Your task to perform on an android device: open the mobile data screen to see how much data has been used Image 0: 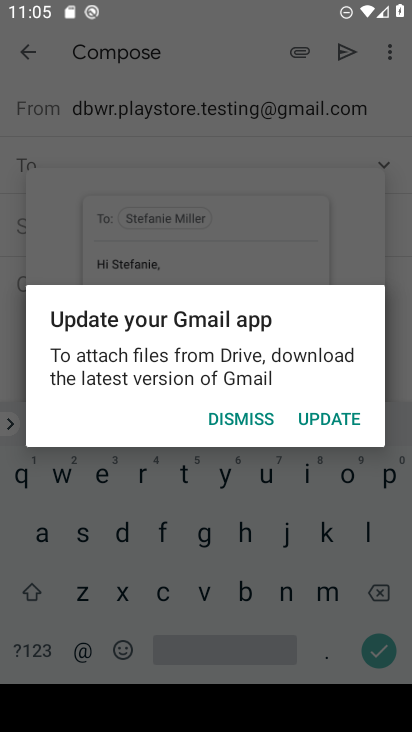
Step 0: press home button
Your task to perform on an android device: open the mobile data screen to see how much data has been used Image 1: 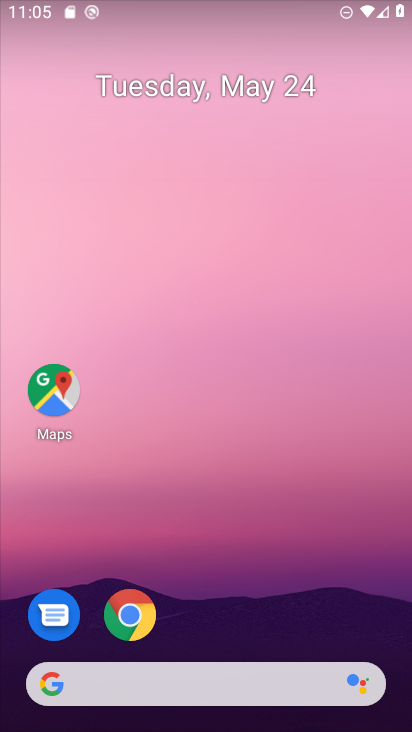
Step 1: drag from (312, 722) to (283, 2)
Your task to perform on an android device: open the mobile data screen to see how much data has been used Image 2: 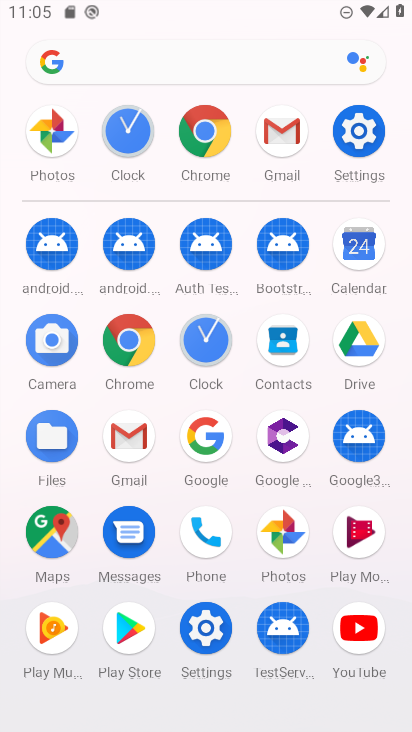
Step 2: click (350, 130)
Your task to perform on an android device: open the mobile data screen to see how much data has been used Image 3: 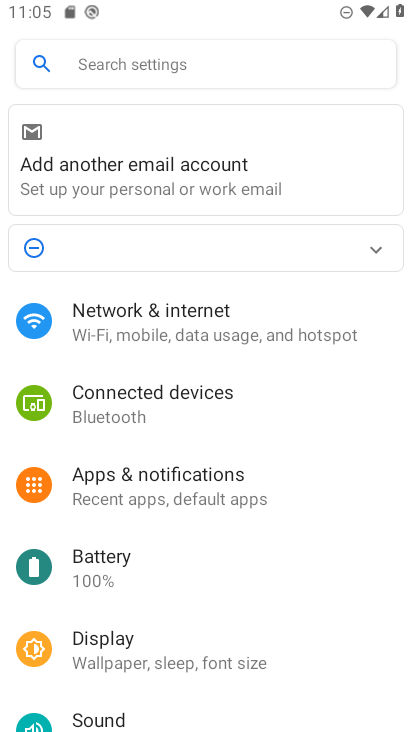
Step 3: click (175, 53)
Your task to perform on an android device: open the mobile data screen to see how much data has been used Image 4: 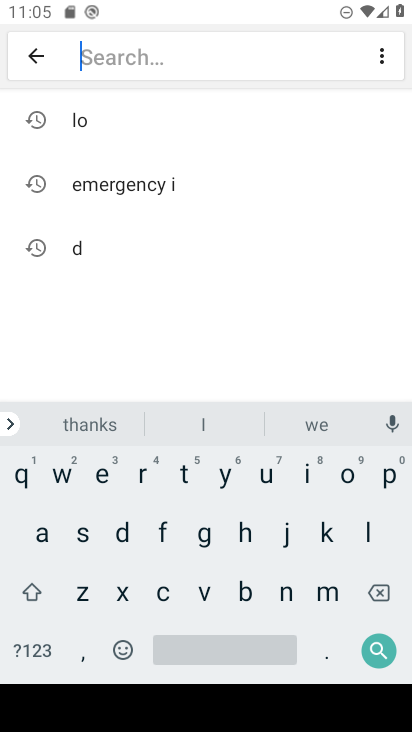
Step 4: click (119, 532)
Your task to perform on an android device: open the mobile data screen to see how much data has been used Image 5: 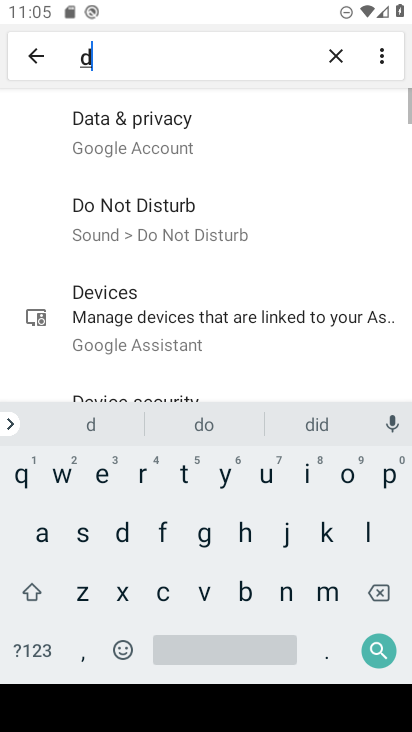
Step 5: click (43, 530)
Your task to perform on an android device: open the mobile data screen to see how much data has been used Image 6: 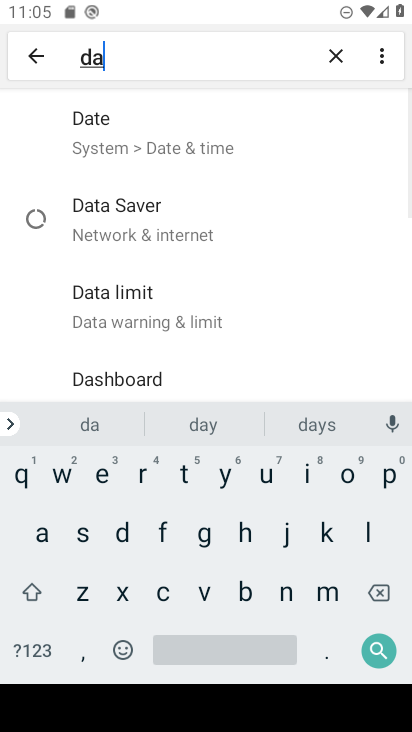
Step 6: click (190, 471)
Your task to perform on an android device: open the mobile data screen to see how much data has been used Image 7: 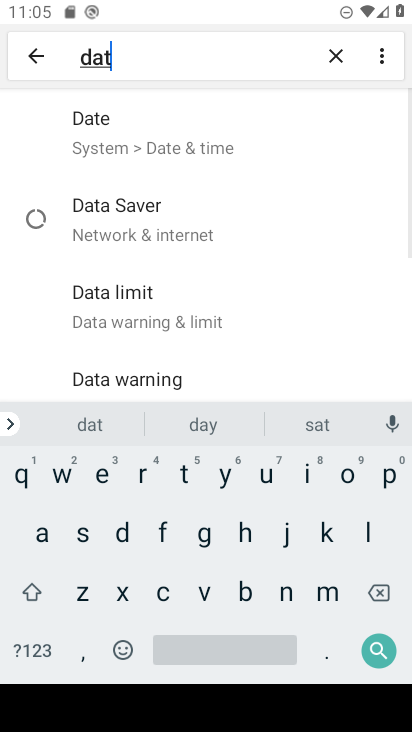
Step 7: click (40, 532)
Your task to perform on an android device: open the mobile data screen to see how much data has been used Image 8: 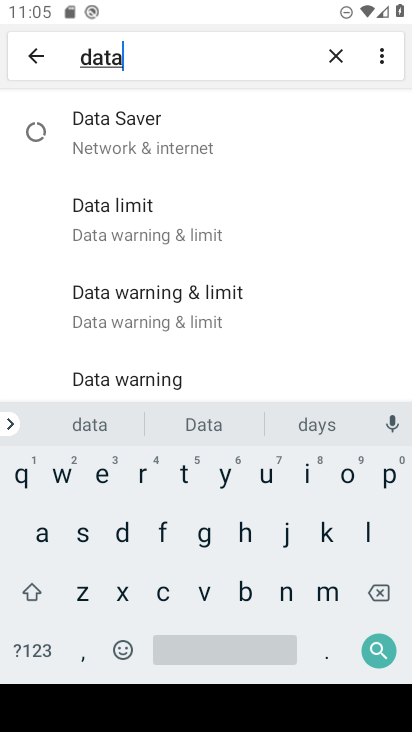
Step 8: click (246, 644)
Your task to perform on an android device: open the mobile data screen to see how much data has been used Image 9: 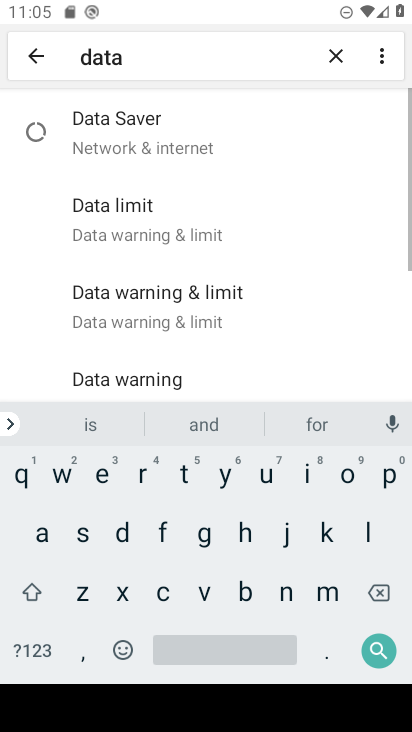
Step 9: click (262, 477)
Your task to perform on an android device: open the mobile data screen to see how much data has been used Image 10: 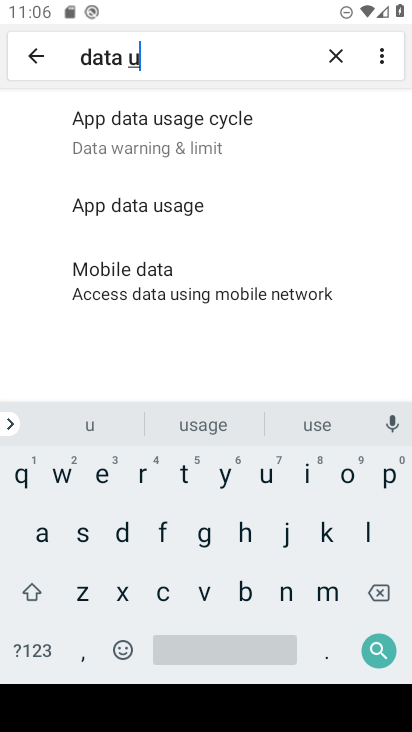
Step 10: click (154, 202)
Your task to perform on an android device: open the mobile data screen to see how much data has been used Image 11: 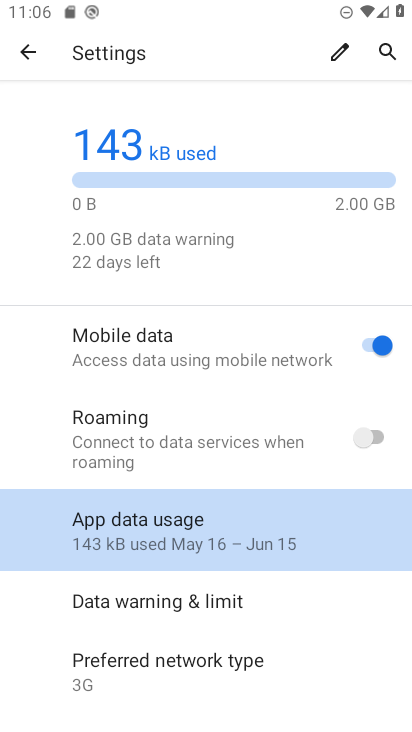
Step 11: click (157, 536)
Your task to perform on an android device: open the mobile data screen to see how much data has been used Image 12: 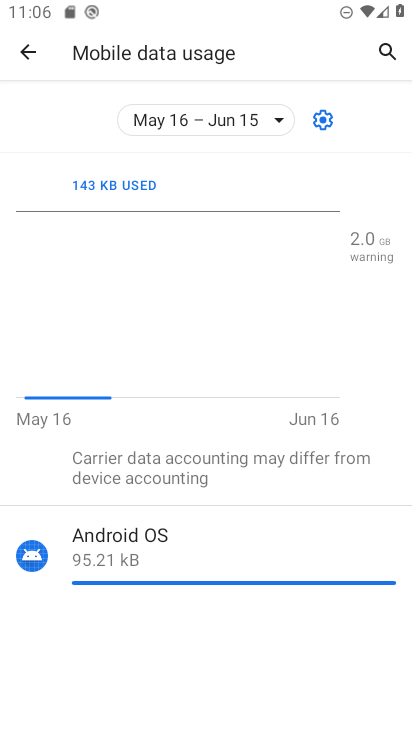
Step 12: task complete